Your task to perform on an android device: Turn on the flashlight Image 0: 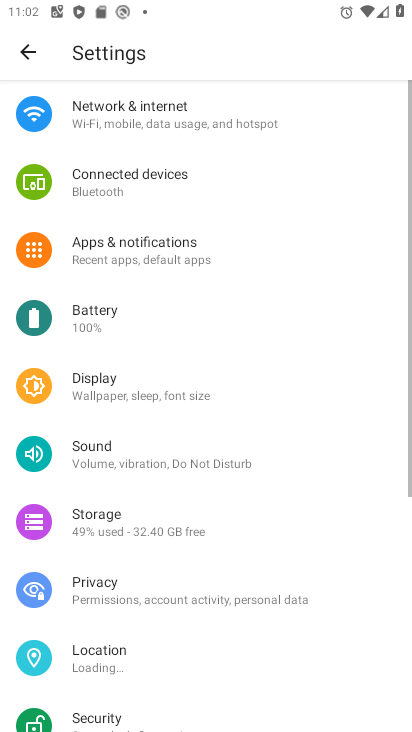
Step 0: press home button
Your task to perform on an android device: Turn on the flashlight Image 1: 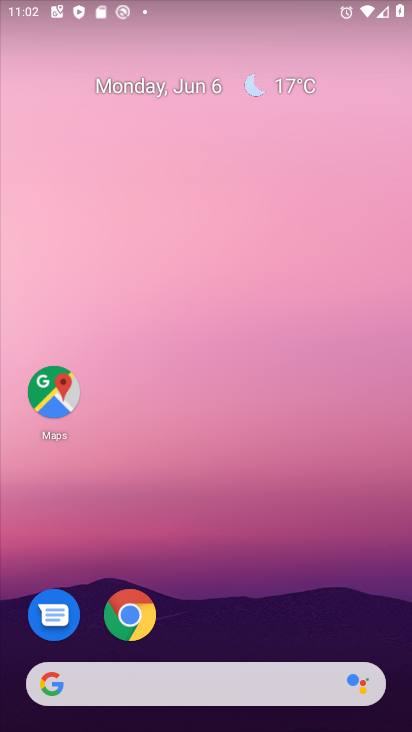
Step 1: drag from (224, 635) to (280, 0)
Your task to perform on an android device: Turn on the flashlight Image 2: 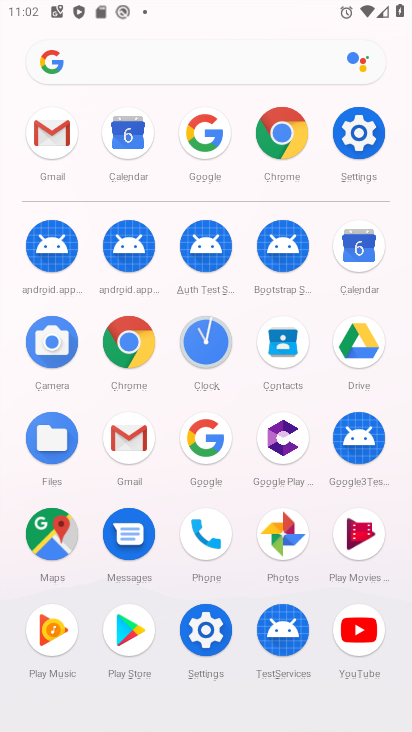
Step 2: click (357, 131)
Your task to perform on an android device: Turn on the flashlight Image 3: 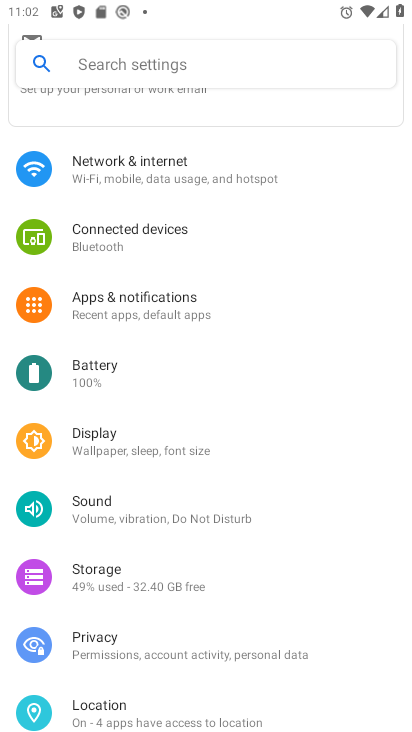
Step 3: click (129, 56)
Your task to perform on an android device: Turn on the flashlight Image 4: 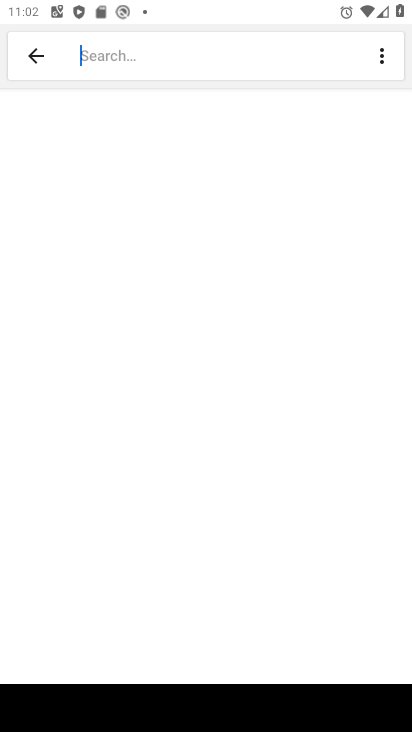
Step 4: type "flashlight"
Your task to perform on an android device: Turn on the flashlight Image 5: 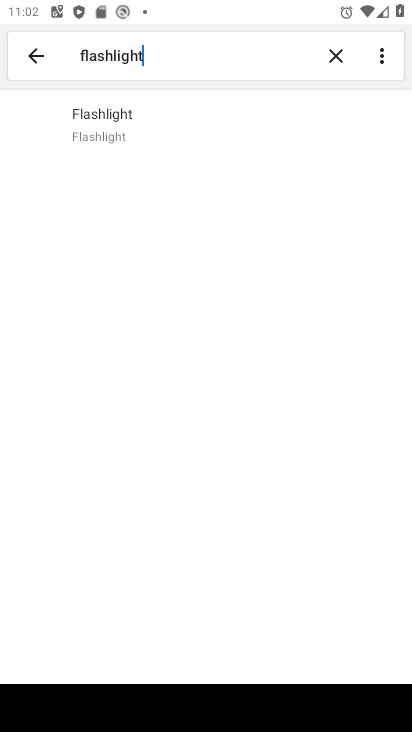
Step 5: click (142, 118)
Your task to perform on an android device: Turn on the flashlight Image 6: 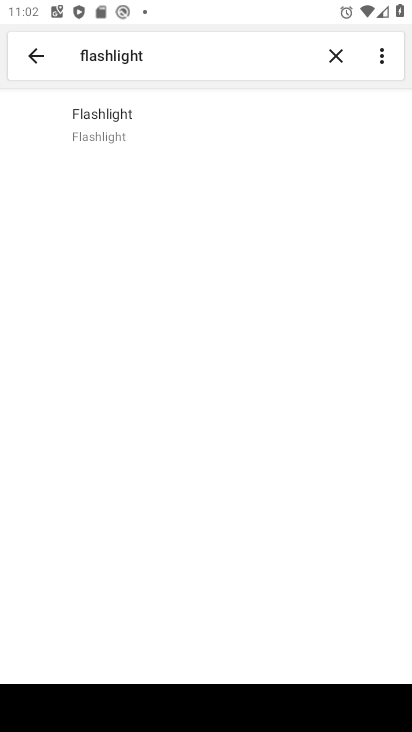
Step 6: click (145, 114)
Your task to perform on an android device: Turn on the flashlight Image 7: 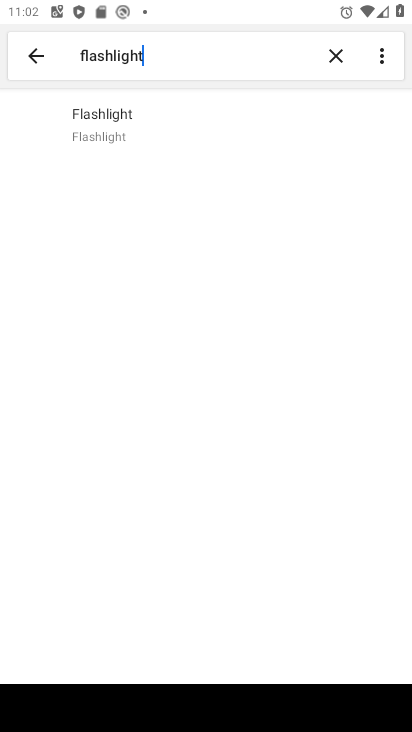
Step 7: task complete